Your task to perform on an android device: choose inbox layout in the gmail app Image 0: 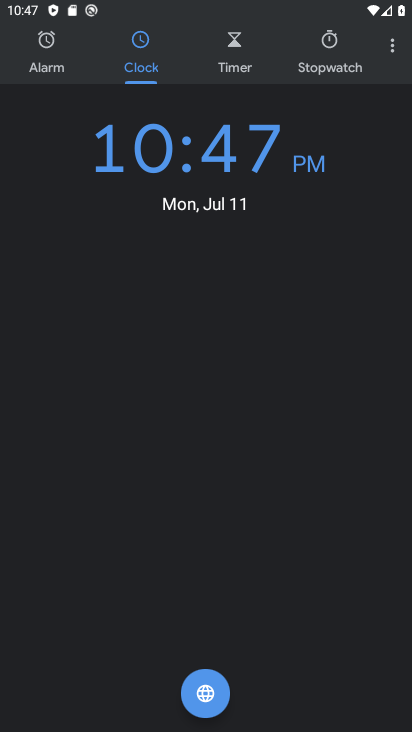
Step 0: press home button
Your task to perform on an android device: choose inbox layout in the gmail app Image 1: 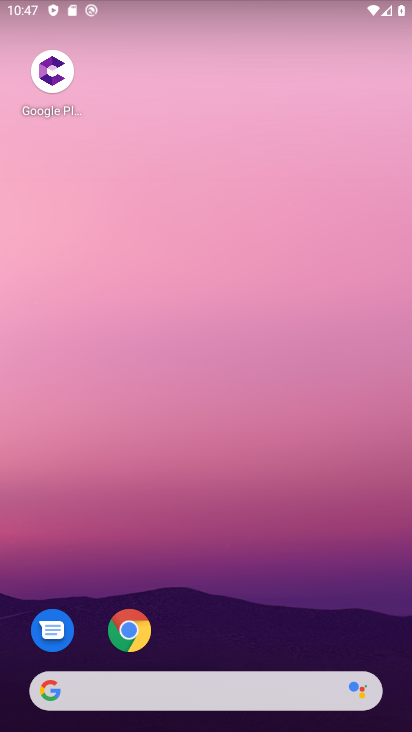
Step 1: drag from (232, 636) to (180, 10)
Your task to perform on an android device: choose inbox layout in the gmail app Image 2: 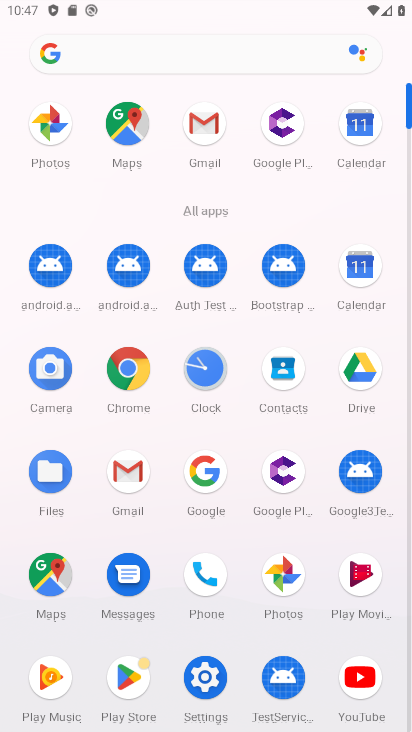
Step 2: click (136, 486)
Your task to perform on an android device: choose inbox layout in the gmail app Image 3: 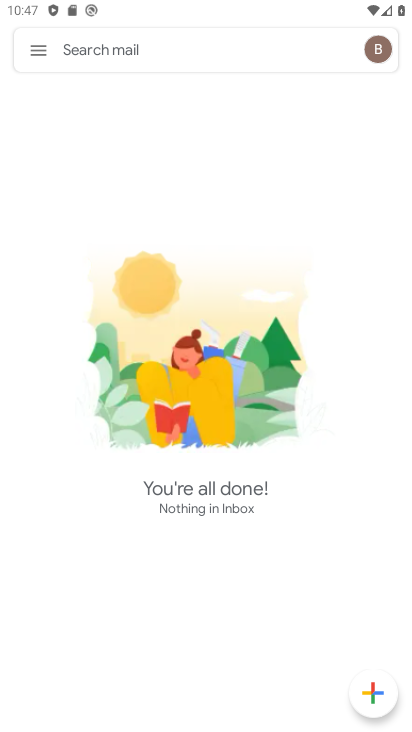
Step 3: click (41, 52)
Your task to perform on an android device: choose inbox layout in the gmail app Image 4: 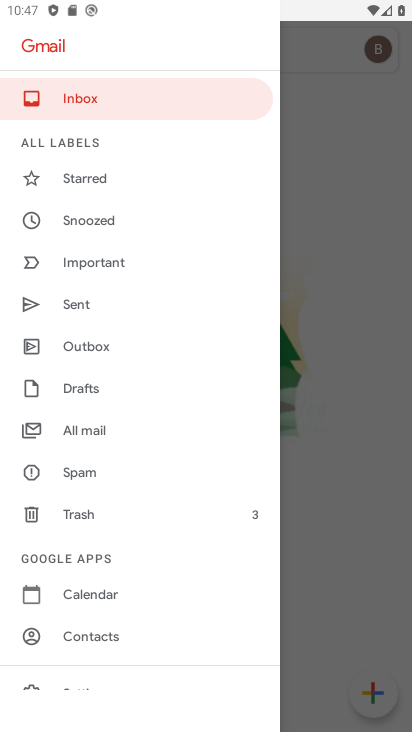
Step 4: drag from (107, 623) to (127, 266)
Your task to perform on an android device: choose inbox layout in the gmail app Image 5: 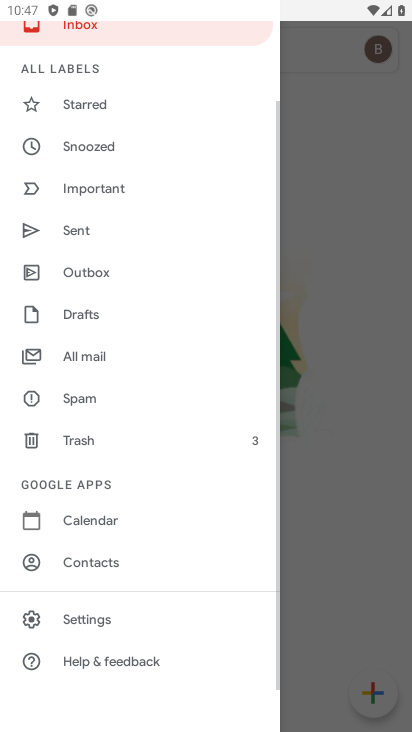
Step 5: click (83, 615)
Your task to perform on an android device: choose inbox layout in the gmail app Image 6: 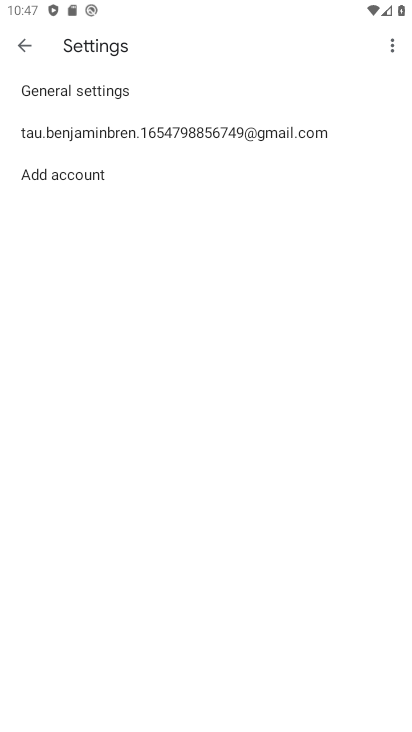
Step 6: click (115, 141)
Your task to perform on an android device: choose inbox layout in the gmail app Image 7: 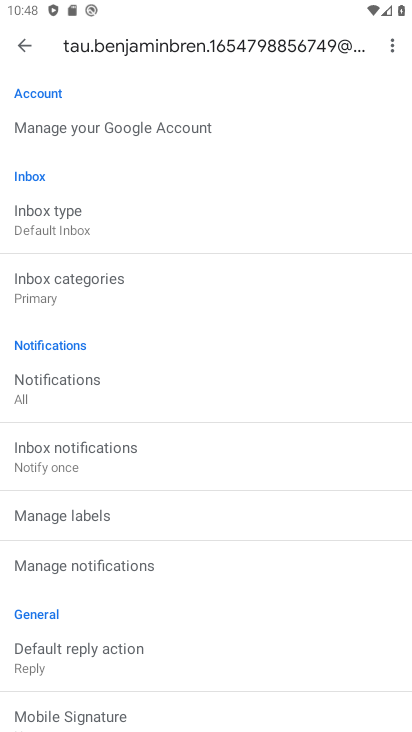
Step 7: click (72, 228)
Your task to perform on an android device: choose inbox layout in the gmail app Image 8: 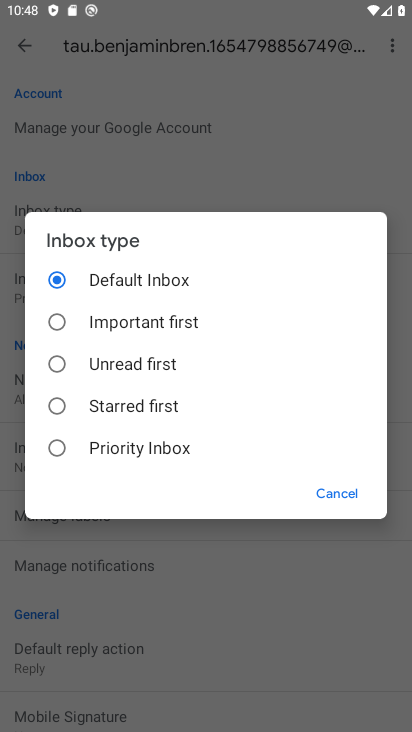
Step 8: click (88, 442)
Your task to perform on an android device: choose inbox layout in the gmail app Image 9: 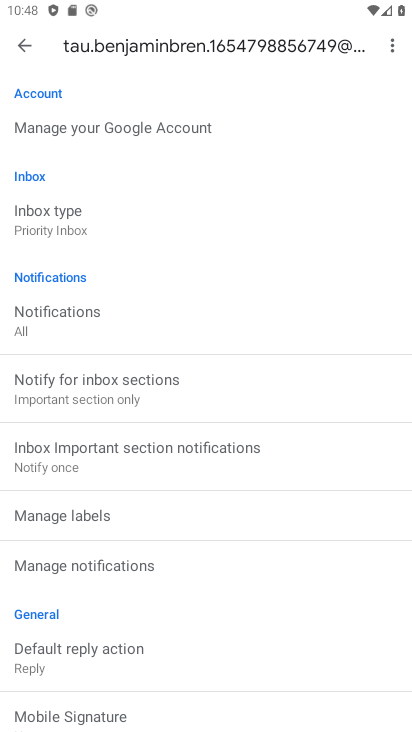
Step 9: task complete